Your task to perform on an android device: Open Youtube and go to the subscriptions tab Image 0: 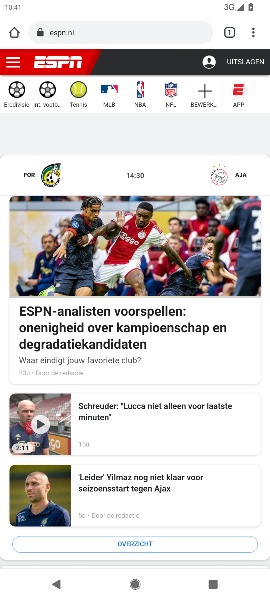
Step 0: press home button
Your task to perform on an android device: Open Youtube and go to the subscriptions tab Image 1: 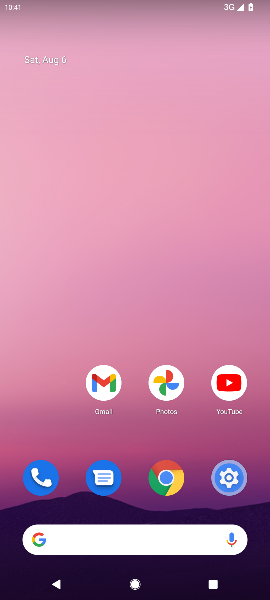
Step 1: drag from (133, 427) to (133, 135)
Your task to perform on an android device: Open Youtube and go to the subscriptions tab Image 2: 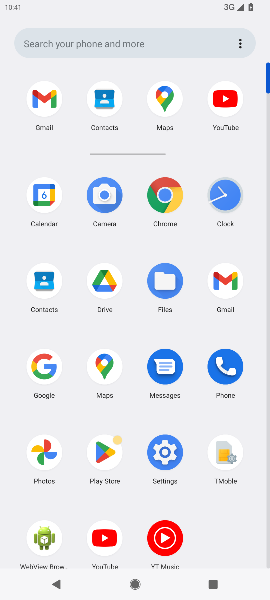
Step 2: click (102, 535)
Your task to perform on an android device: Open Youtube and go to the subscriptions tab Image 3: 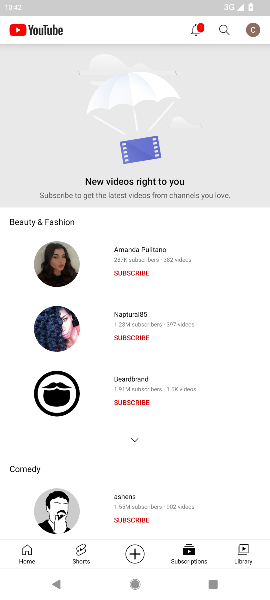
Step 3: click (189, 550)
Your task to perform on an android device: Open Youtube and go to the subscriptions tab Image 4: 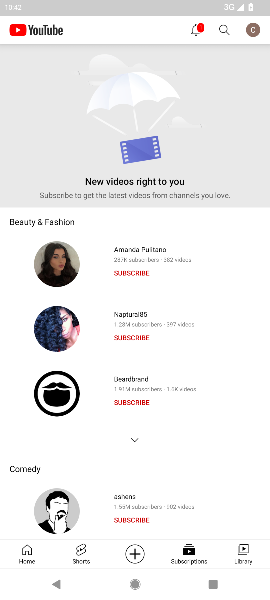
Step 4: task complete